Your task to perform on an android device: turn on sleep mode Image 0: 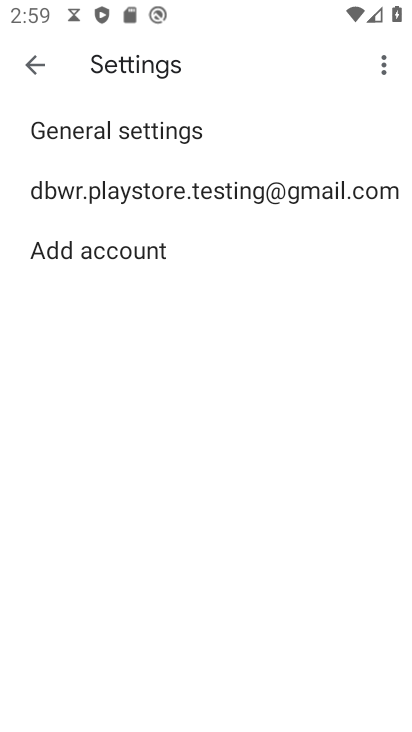
Step 0: click (134, 186)
Your task to perform on an android device: turn on sleep mode Image 1: 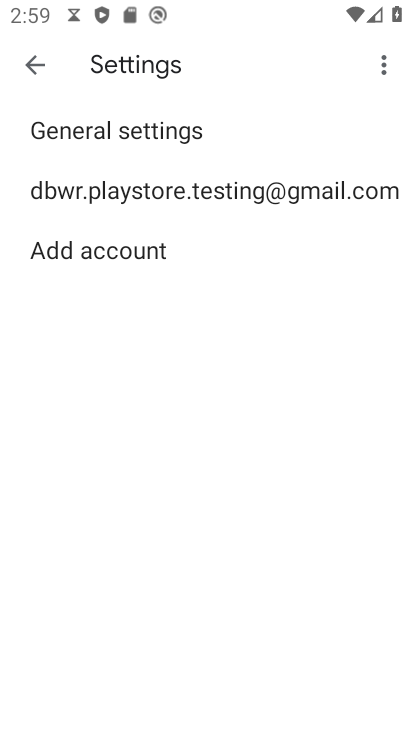
Step 1: click (212, 178)
Your task to perform on an android device: turn on sleep mode Image 2: 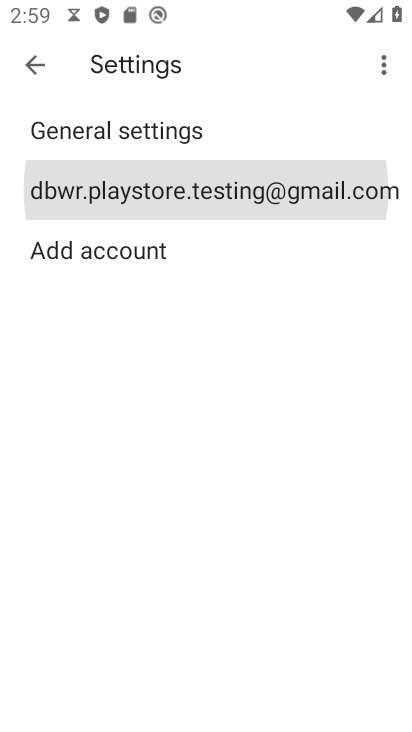
Step 2: click (213, 181)
Your task to perform on an android device: turn on sleep mode Image 3: 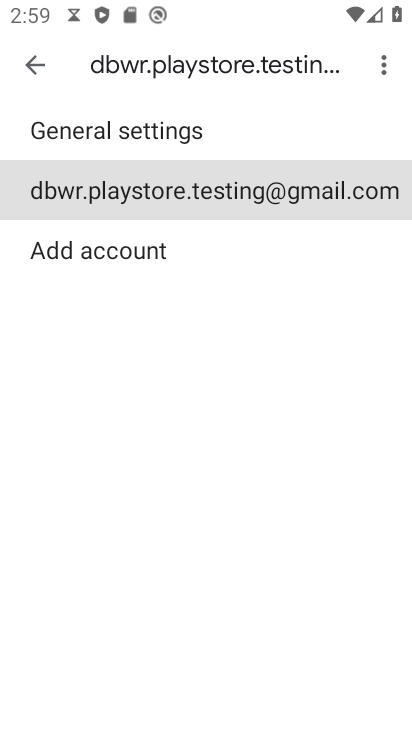
Step 3: click (216, 199)
Your task to perform on an android device: turn on sleep mode Image 4: 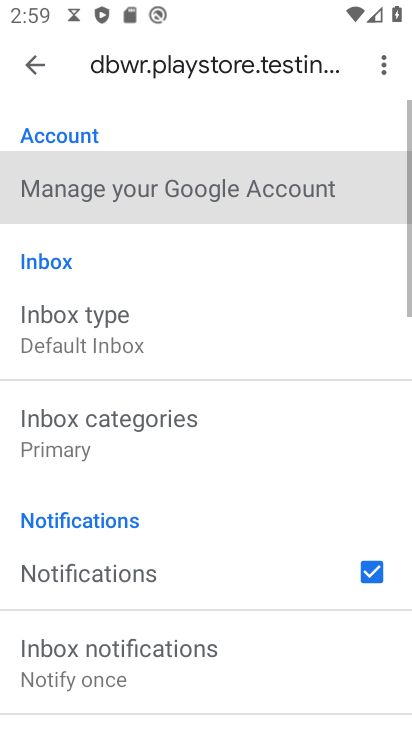
Step 4: click (205, 199)
Your task to perform on an android device: turn on sleep mode Image 5: 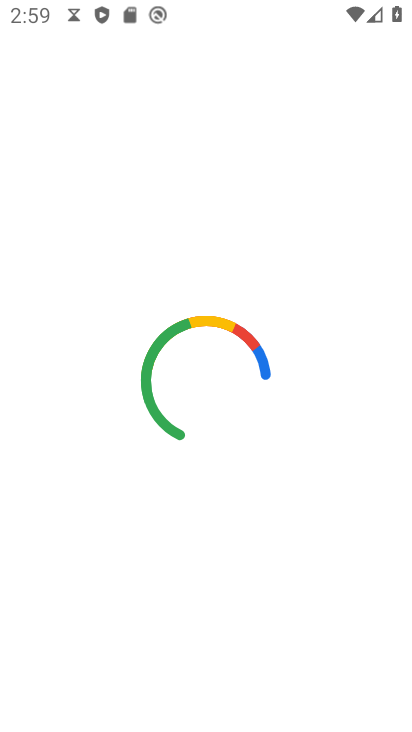
Step 5: press back button
Your task to perform on an android device: turn on sleep mode Image 6: 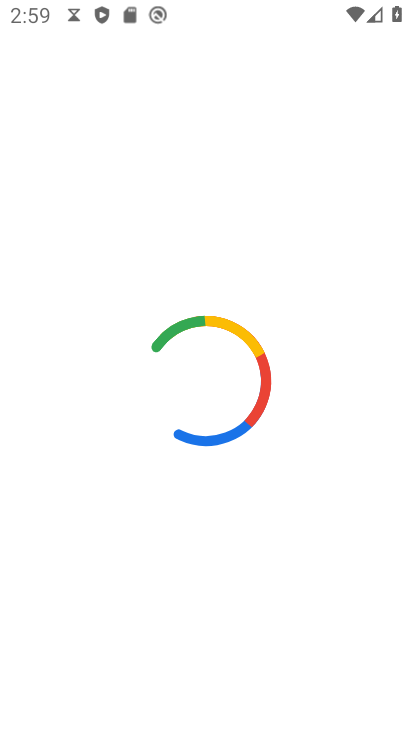
Step 6: press home button
Your task to perform on an android device: turn on sleep mode Image 7: 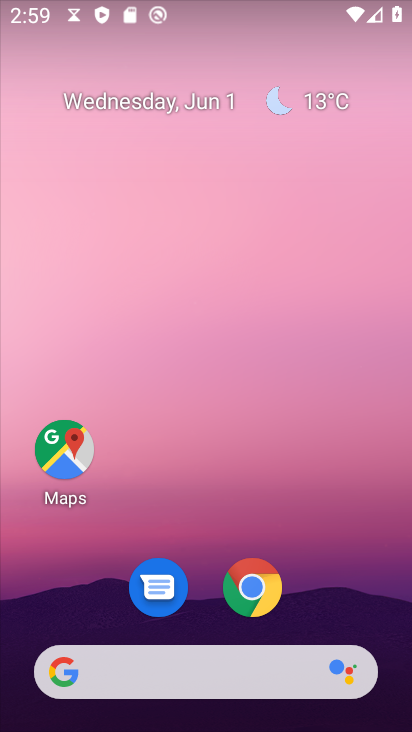
Step 7: drag from (229, 661) to (191, 192)
Your task to perform on an android device: turn on sleep mode Image 8: 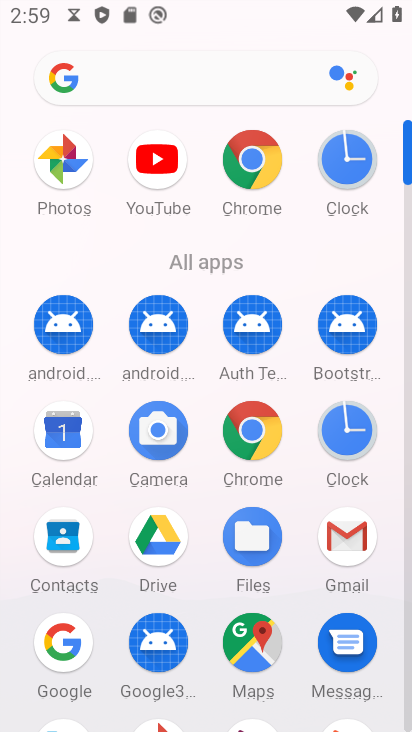
Step 8: drag from (183, 566) to (183, 1)
Your task to perform on an android device: turn on sleep mode Image 9: 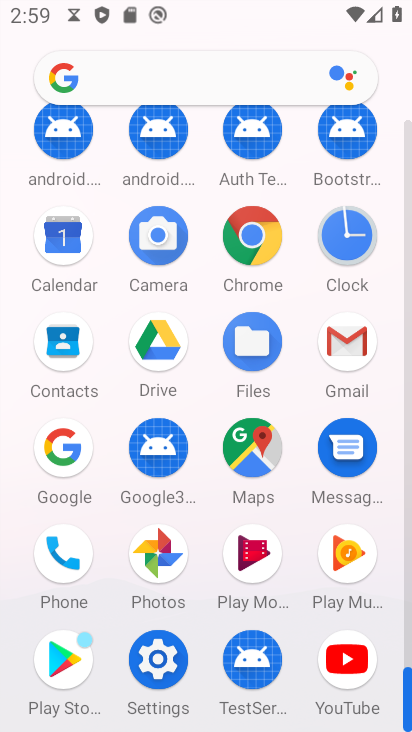
Step 9: drag from (222, 490) to (198, 113)
Your task to perform on an android device: turn on sleep mode Image 10: 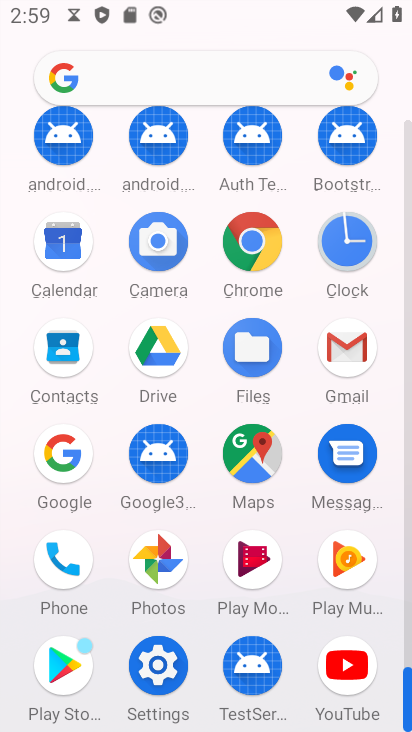
Step 10: click (148, 662)
Your task to perform on an android device: turn on sleep mode Image 11: 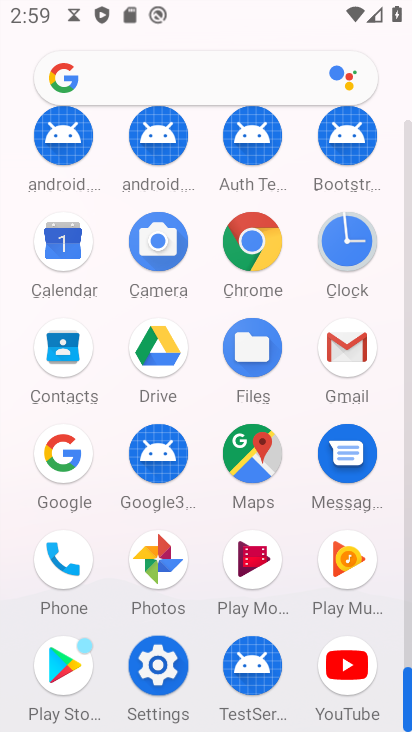
Step 11: click (152, 659)
Your task to perform on an android device: turn on sleep mode Image 12: 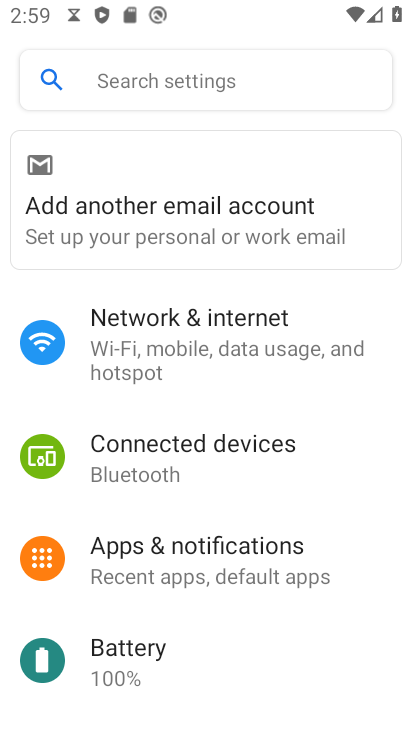
Step 12: drag from (181, 619) to (180, 251)
Your task to perform on an android device: turn on sleep mode Image 13: 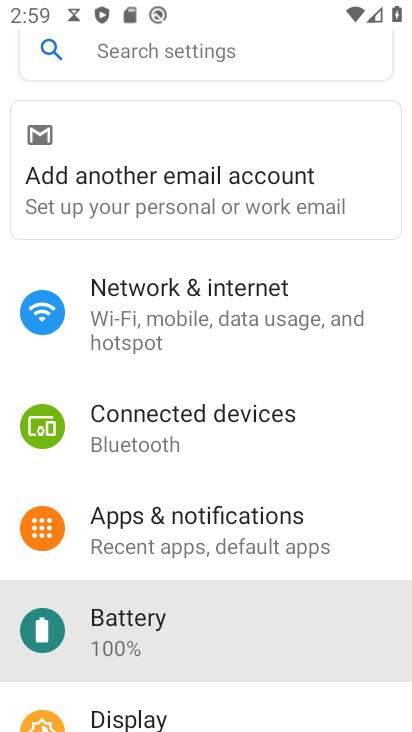
Step 13: drag from (180, 531) to (156, 266)
Your task to perform on an android device: turn on sleep mode Image 14: 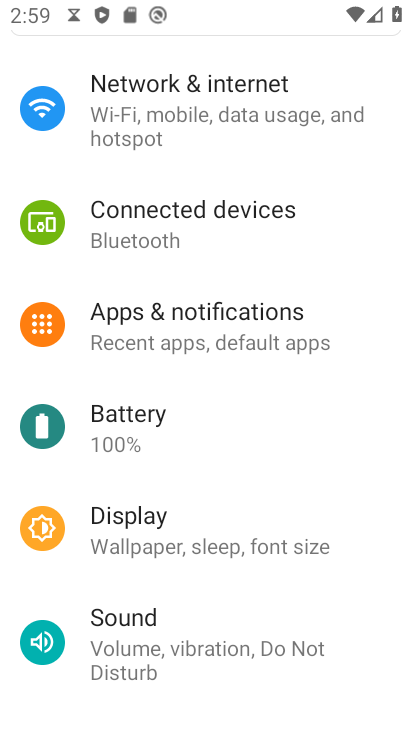
Step 14: drag from (155, 506) to (140, 302)
Your task to perform on an android device: turn on sleep mode Image 15: 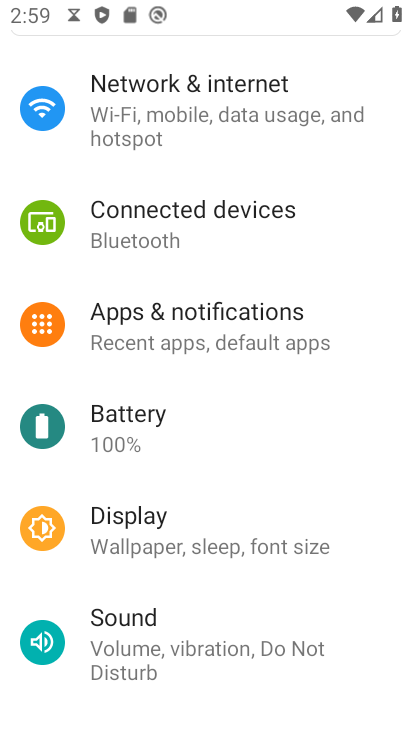
Step 15: click (129, 537)
Your task to perform on an android device: turn on sleep mode Image 16: 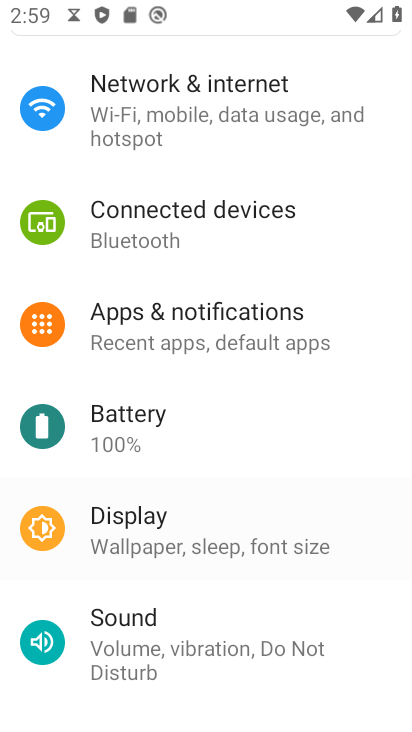
Step 16: click (128, 536)
Your task to perform on an android device: turn on sleep mode Image 17: 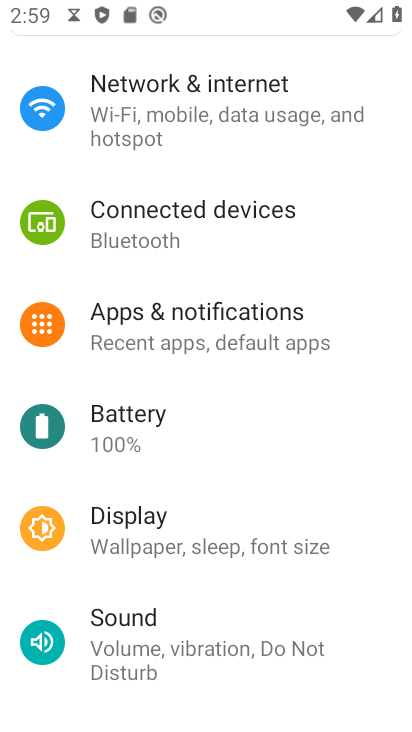
Step 17: click (128, 536)
Your task to perform on an android device: turn on sleep mode Image 18: 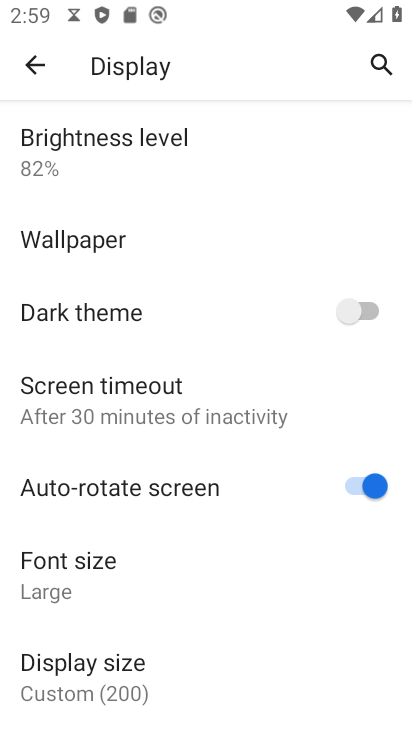
Step 18: drag from (105, 635) to (107, 238)
Your task to perform on an android device: turn on sleep mode Image 19: 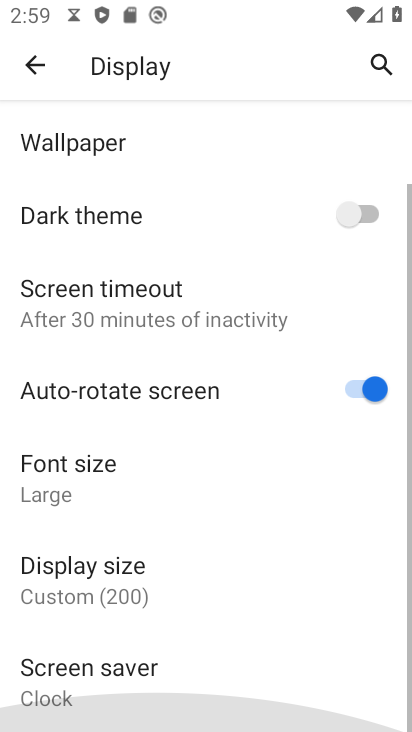
Step 19: drag from (108, 509) to (108, 271)
Your task to perform on an android device: turn on sleep mode Image 20: 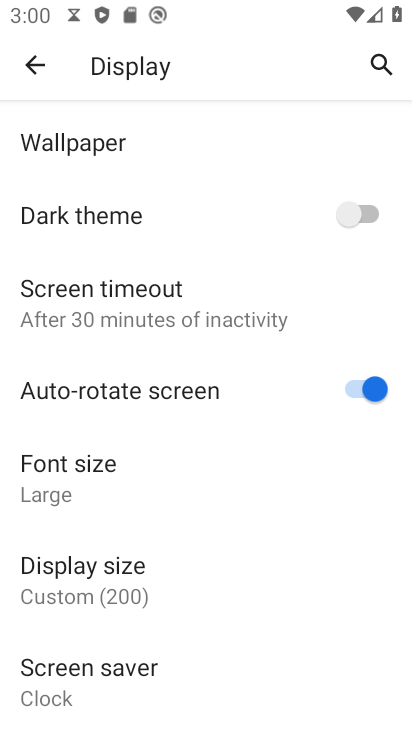
Step 20: click (110, 309)
Your task to perform on an android device: turn on sleep mode Image 21: 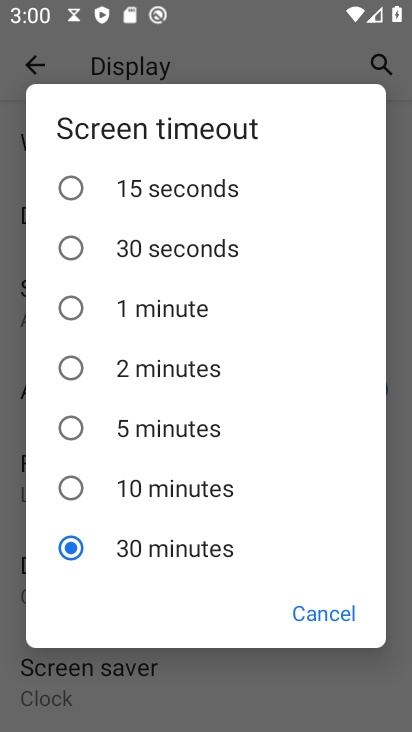
Step 21: task complete